Your task to perform on an android device: Go to battery settings Image 0: 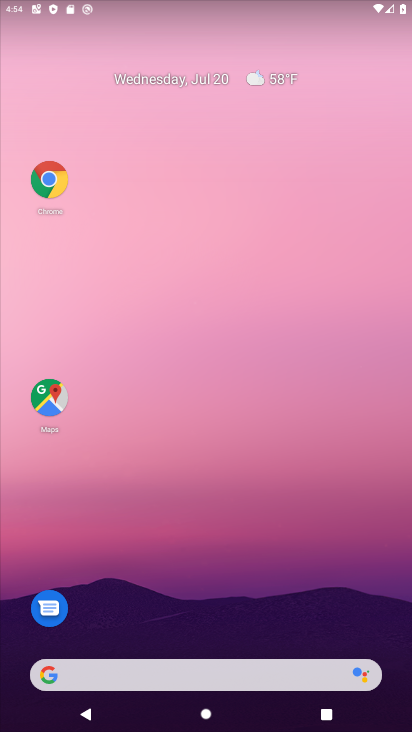
Step 0: drag from (204, 650) to (115, 103)
Your task to perform on an android device: Go to battery settings Image 1: 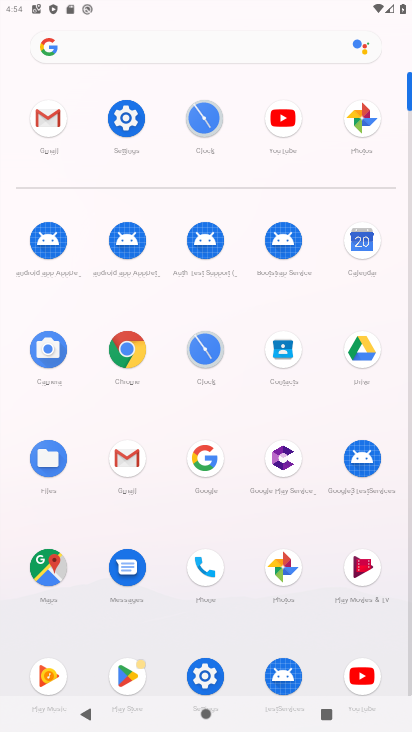
Step 1: click (202, 657)
Your task to perform on an android device: Go to battery settings Image 2: 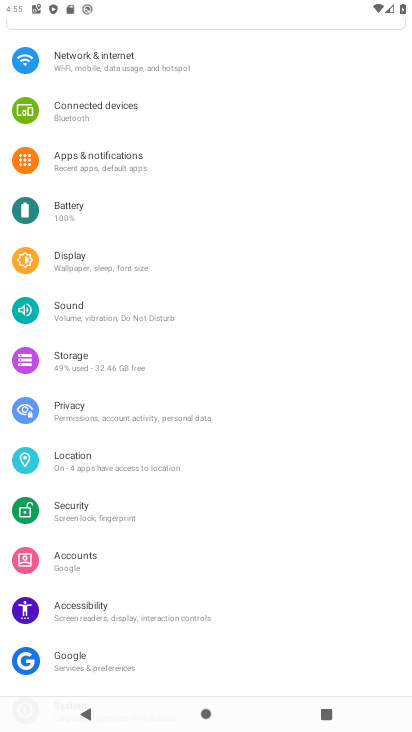
Step 2: click (74, 215)
Your task to perform on an android device: Go to battery settings Image 3: 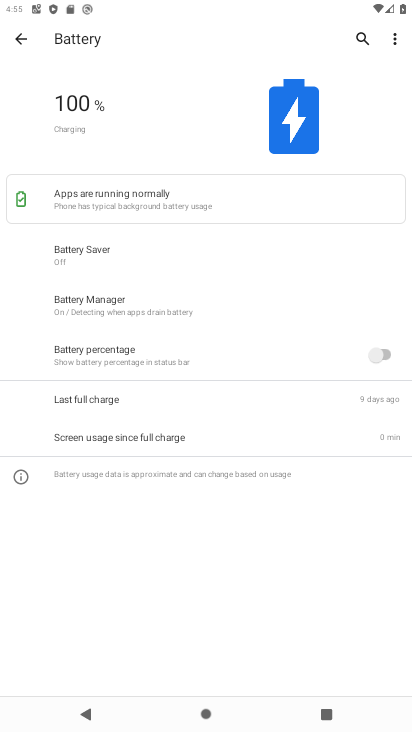
Step 3: task complete